Your task to perform on an android device: Open settings Image 0: 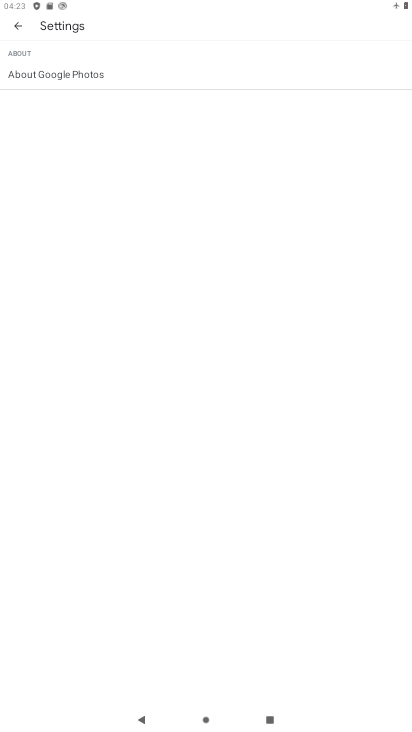
Step 0: press home button
Your task to perform on an android device: Open settings Image 1: 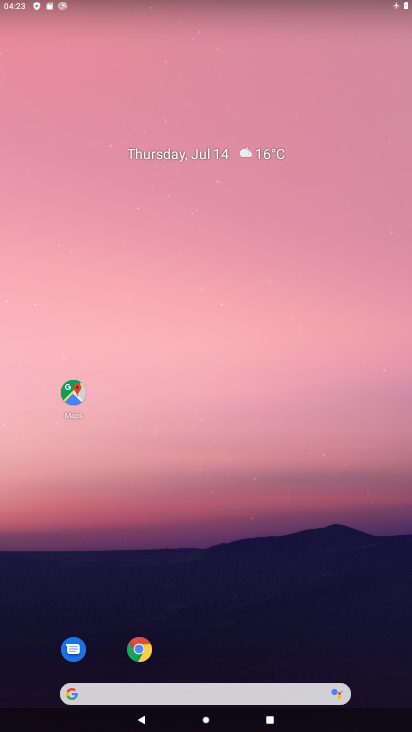
Step 1: drag from (233, 623) to (119, 0)
Your task to perform on an android device: Open settings Image 2: 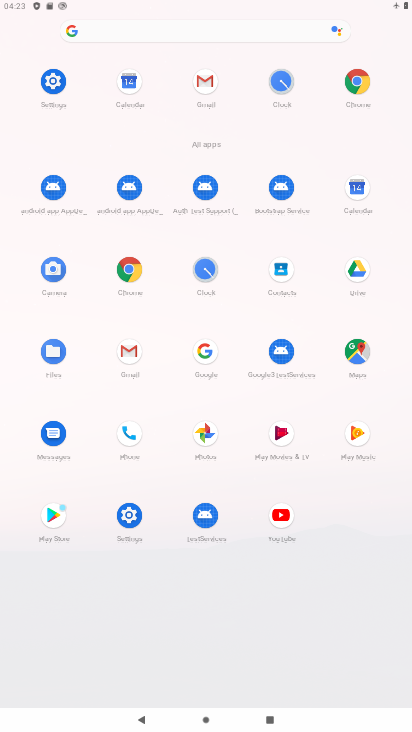
Step 2: click (55, 78)
Your task to perform on an android device: Open settings Image 3: 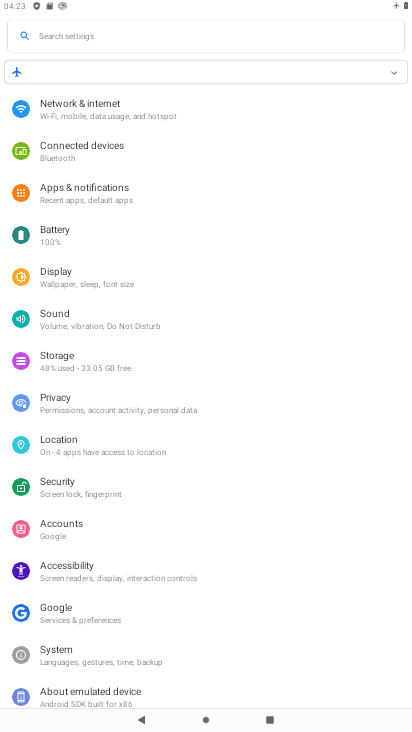
Step 3: task complete